Your task to perform on an android device: Open Amazon Image 0: 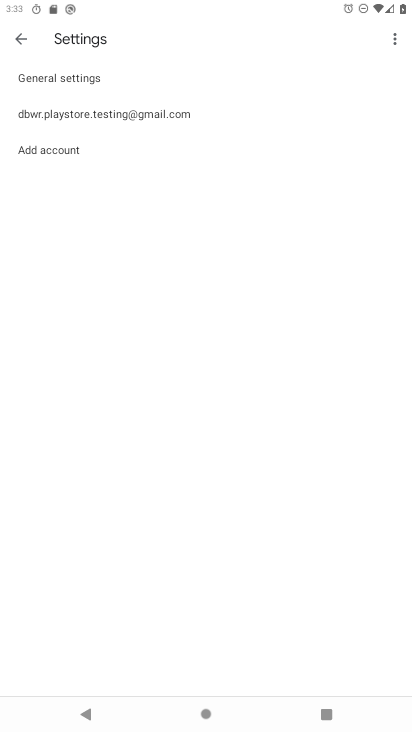
Step 0: press home button
Your task to perform on an android device: Open Amazon Image 1: 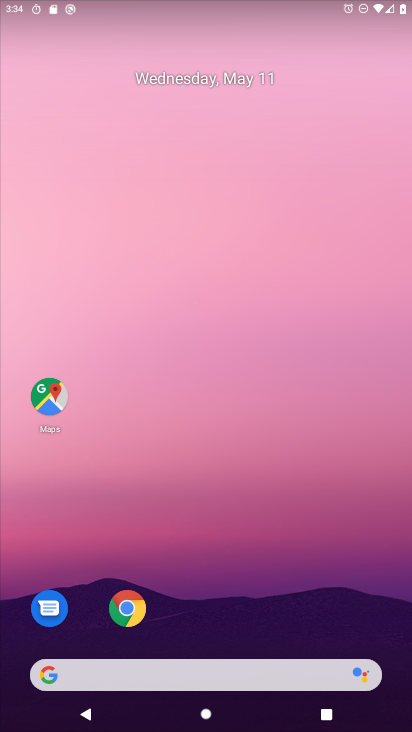
Step 1: drag from (273, 680) to (308, 89)
Your task to perform on an android device: Open Amazon Image 2: 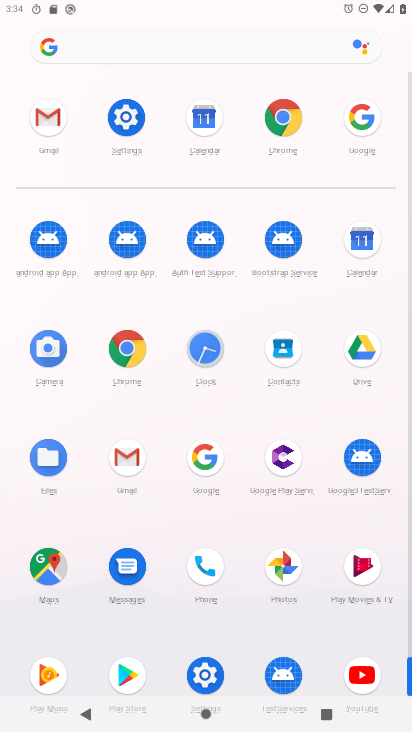
Step 2: click (284, 145)
Your task to perform on an android device: Open Amazon Image 3: 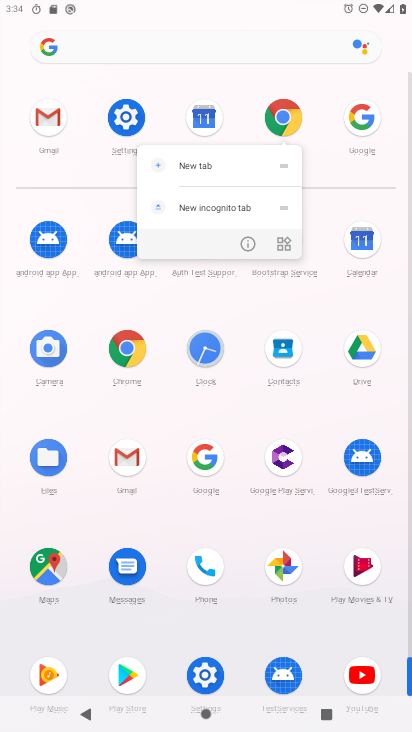
Step 3: click (283, 142)
Your task to perform on an android device: Open Amazon Image 4: 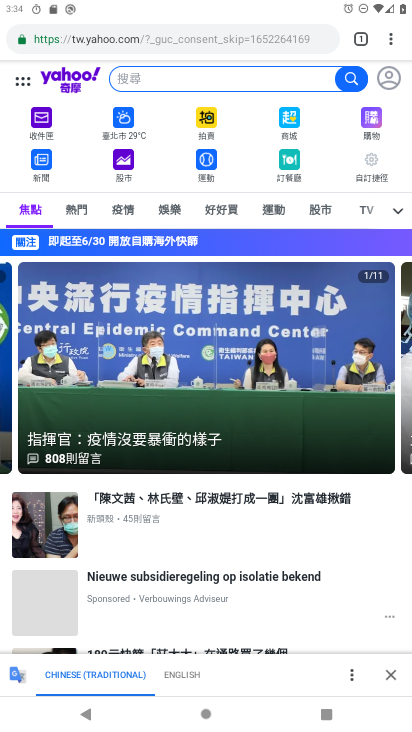
Step 4: drag from (176, 556) to (176, 307)
Your task to perform on an android device: Open Amazon Image 5: 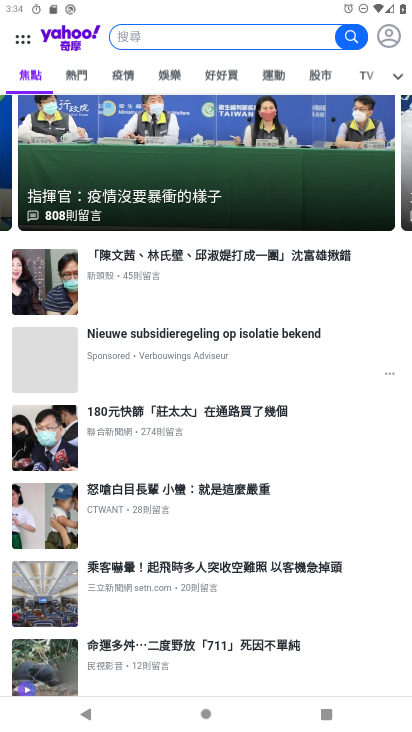
Step 5: drag from (305, 93) to (293, 616)
Your task to perform on an android device: Open Amazon Image 6: 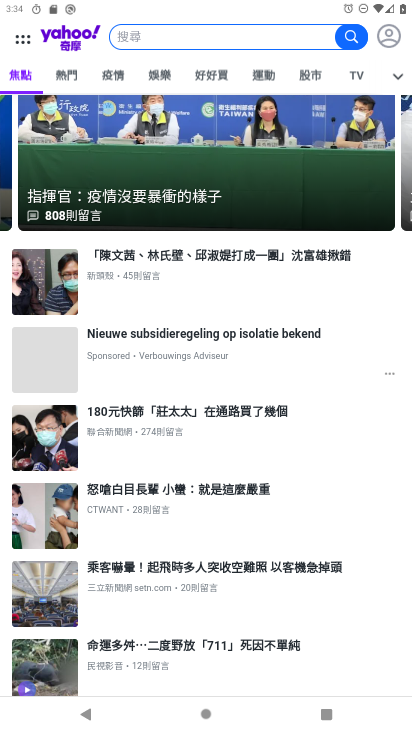
Step 6: drag from (287, 368) to (287, 630)
Your task to perform on an android device: Open Amazon Image 7: 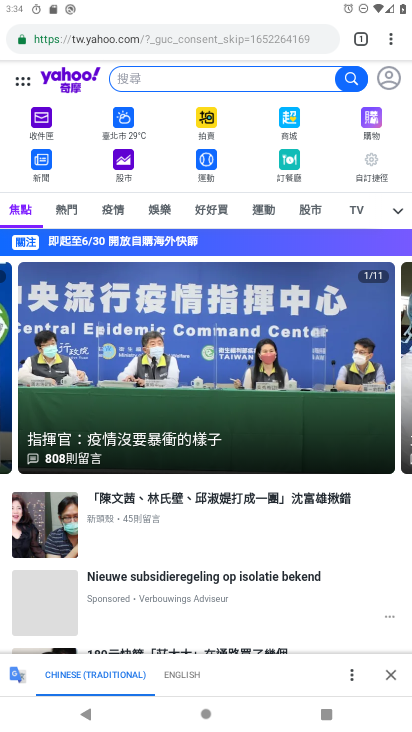
Step 7: click (269, 44)
Your task to perform on an android device: Open Amazon Image 8: 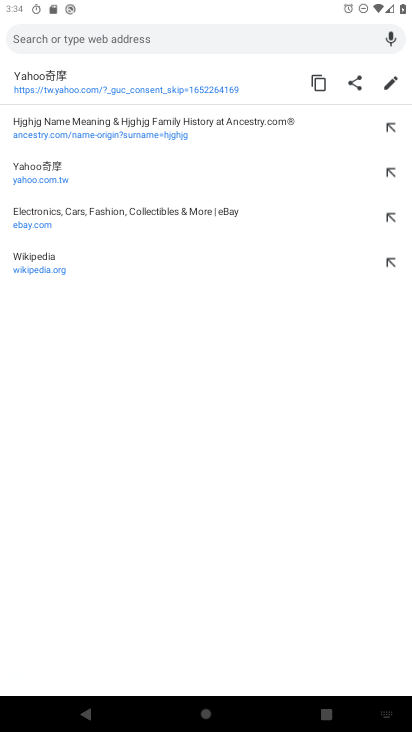
Step 8: type "amazon"
Your task to perform on an android device: Open Amazon Image 9: 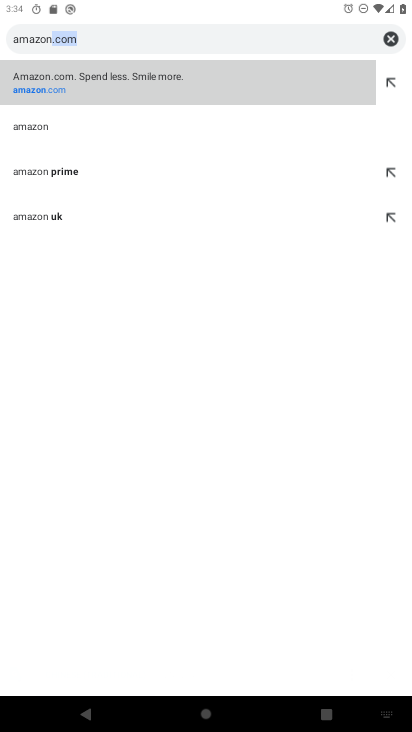
Step 9: click (121, 81)
Your task to perform on an android device: Open Amazon Image 10: 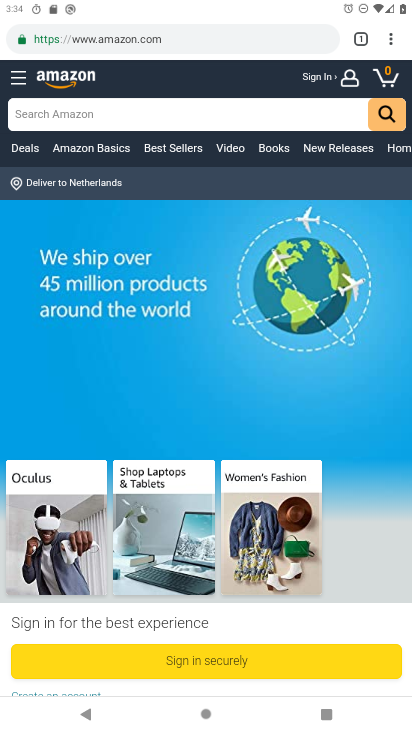
Step 10: task complete